Your task to perform on an android device: find which apps use the phone's location Image 0: 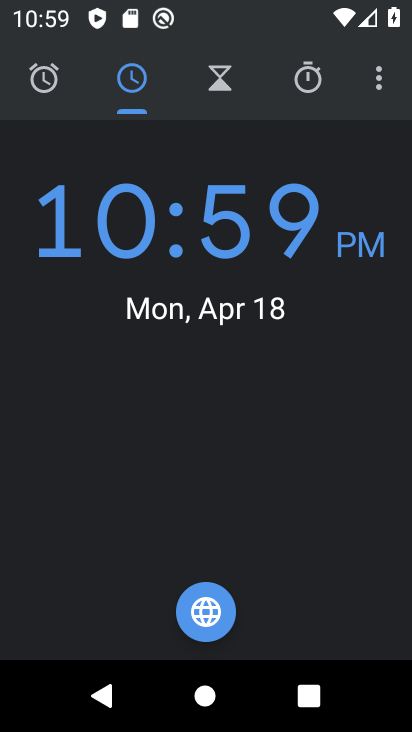
Step 0: press home button
Your task to perform on an android device: find which apps use the phone's location Image 1: 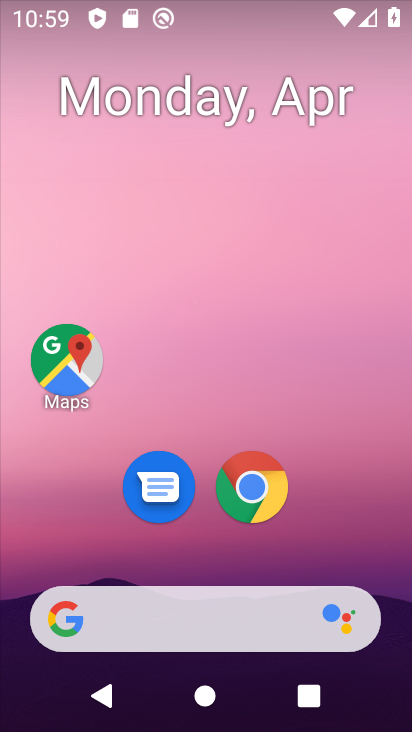
Step 1: drag from (401, 568) to (300, 80)
Your task to perform on an android device: find which apps use the phone's location Image 2: 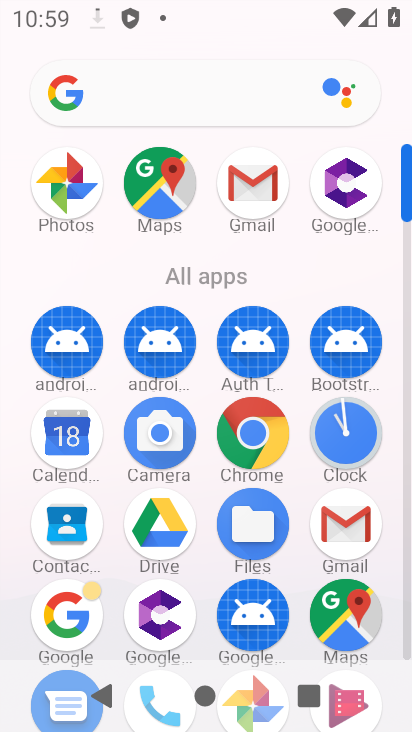
Step 2: click (408, 644)
Your task to perform on an android device: find which apps use the phone's location Image 3: 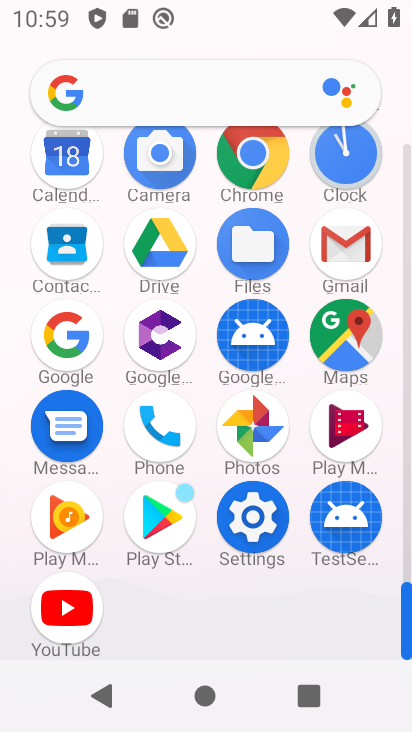
Step 3: click (272, 519)
Your task to perform on an android device: find which apps use the phone's location Image 4: 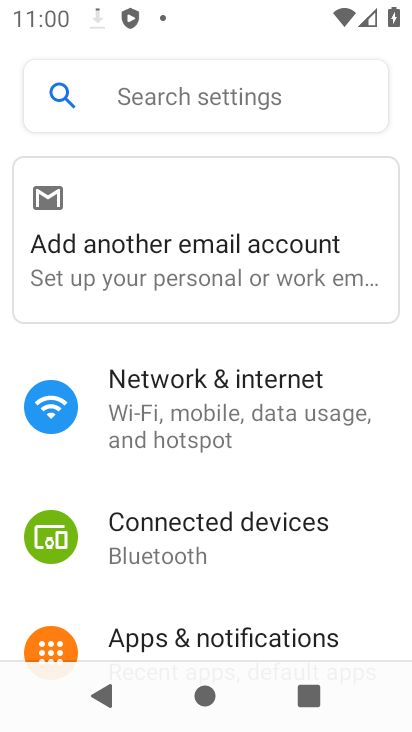
Step 4: drag from (309, 601) to (302, 317)
Your task to perform on an android device: find which apps use the phone's location Image 5: 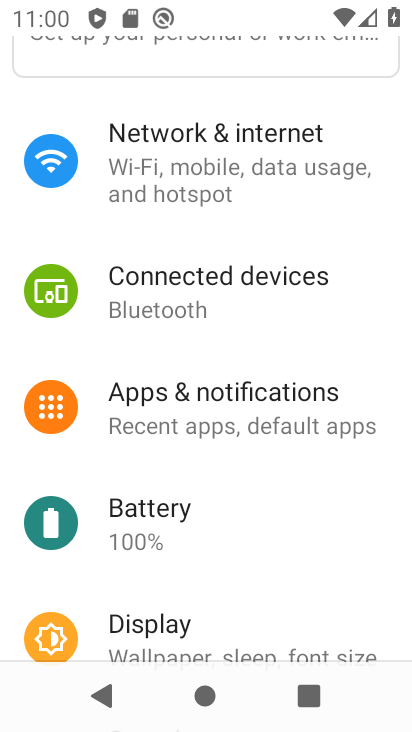
Step 5: drag from (306, 538) to (293, 250)
Your task to perform on an android device: find which apps use the phone's location Image 6: 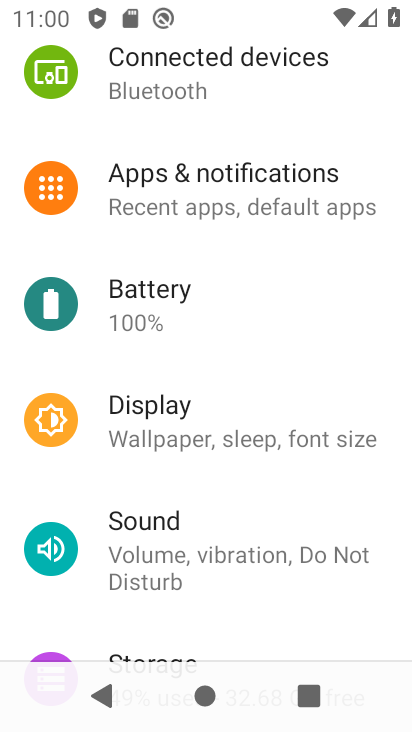
Step 6: drag from (289, 586) to (244, 284)
Your task to perform on an android device: find which apps use the phone's location Image 7: 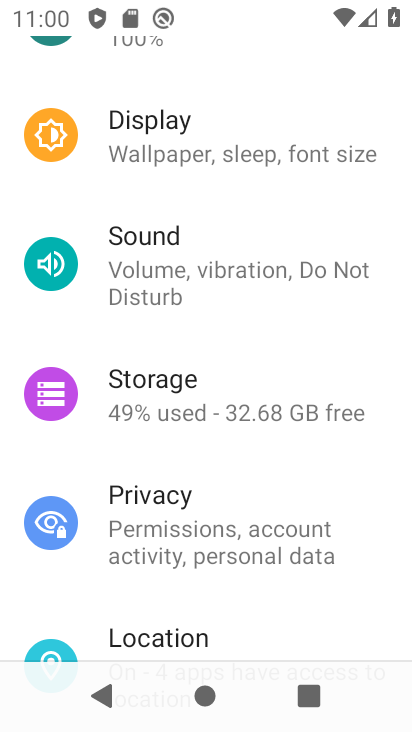
Step 7: drag from (271, 619) to (252, 442)
Your task to perform on an android device: find which apps use the phone's location Image 8: 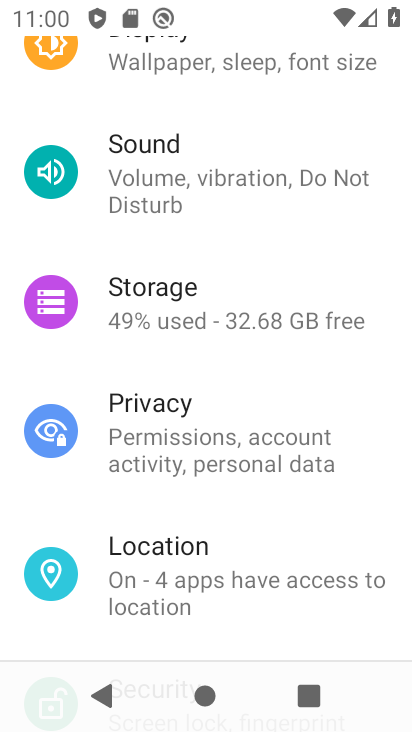
Step 8: click (249, 572)
Your task to perform on an android device: find which apps use the phone's location Image 9: 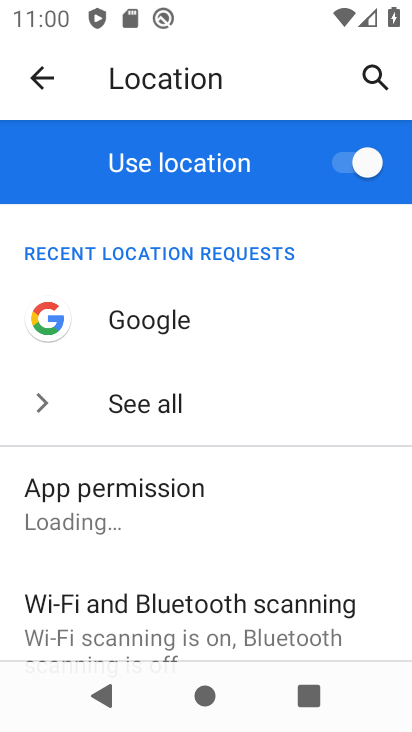
Step 9: drag from (311, 585) to (301, 495)
Your task to perform on an android device: find which apps use the phone's location Image 10: 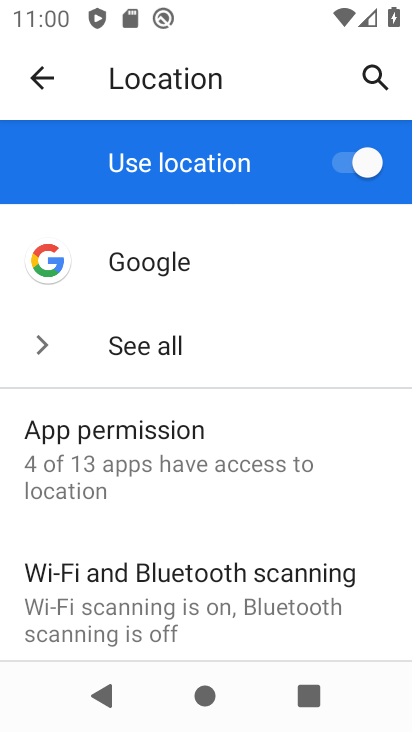
Step 10: click (270, 478)
Your task to perform on an android device: find which apps use the phone's location Image 11: 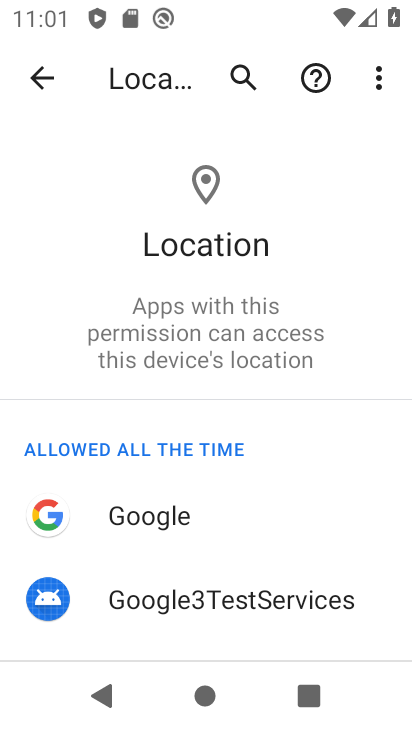
Step 11: task complete